Your task to perform on an android device: Open accessibility settings Image 0: 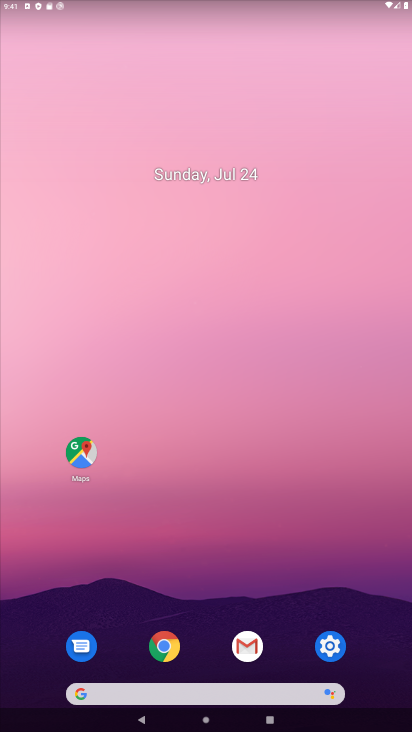
Step 0: click (322, 656)
Your task to perform on an android device: Open accessibility settings Image 1: 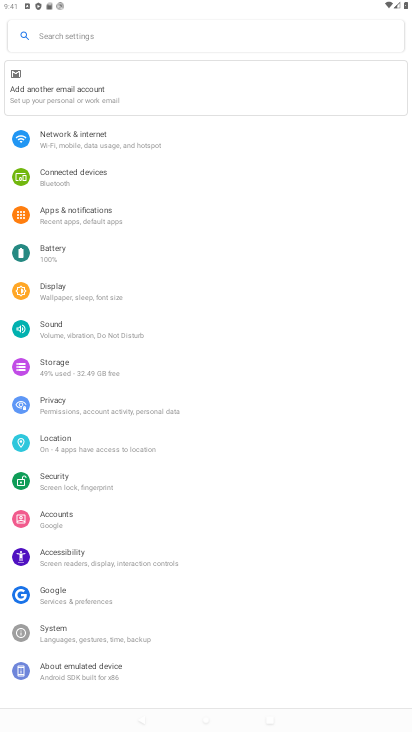
Step 1: click (83, 38)
Your task to perform on an android device: Open accessibility settings Image 2: 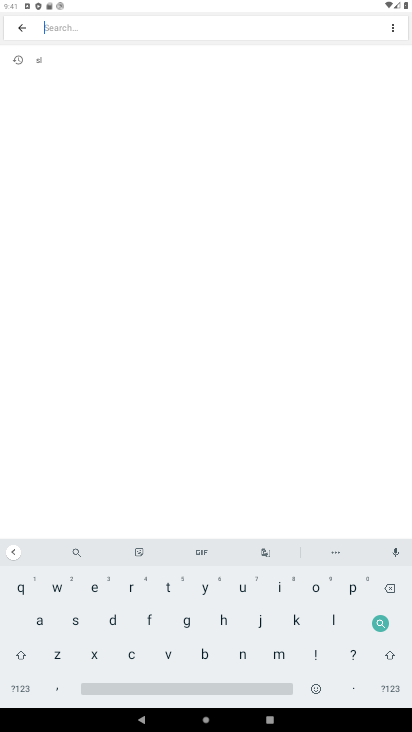
Step 2: click (32, 622)
Your task to perform on an android device: Open accessibility settings Image 3: 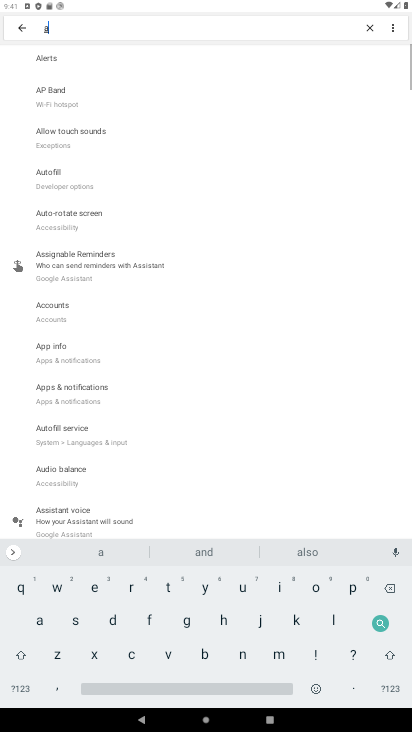
Step 3: click (121, 653)
Your task to perform on an android device: Open accessibility settings Image 4: 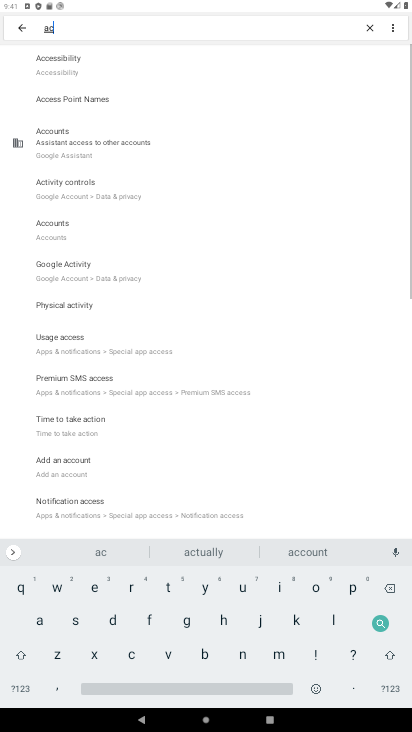
Step 4: click (74, 64)
Your task to perform on an android device: Open accessibility settings Image 5: 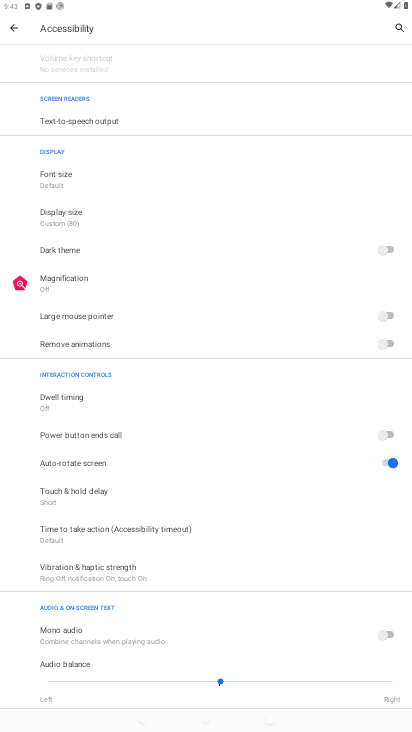
Step 5: task complete